Your task to perform on an android device: turn vacation reply on in the gmail app Image 0: 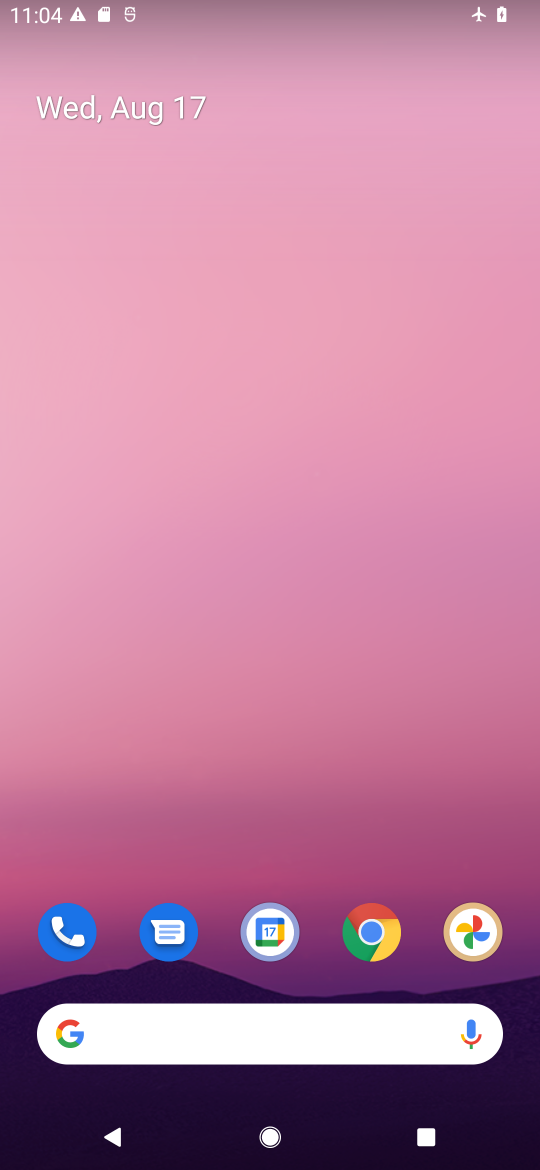
Step 0: drag from (288, 854) to (281, 381)
Your task to perform on an android device: turn vacation reply on in the gmail app Image 1: 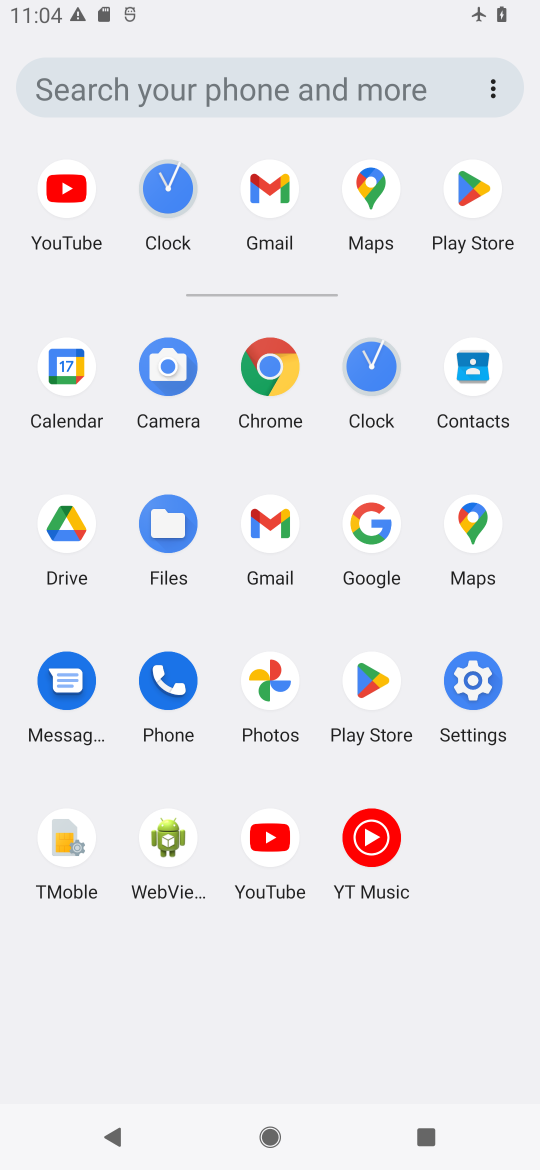
Step 1: click (259, 219)
Your task to perform on an android device: turn vacation reply on in the gmail app Image 2: 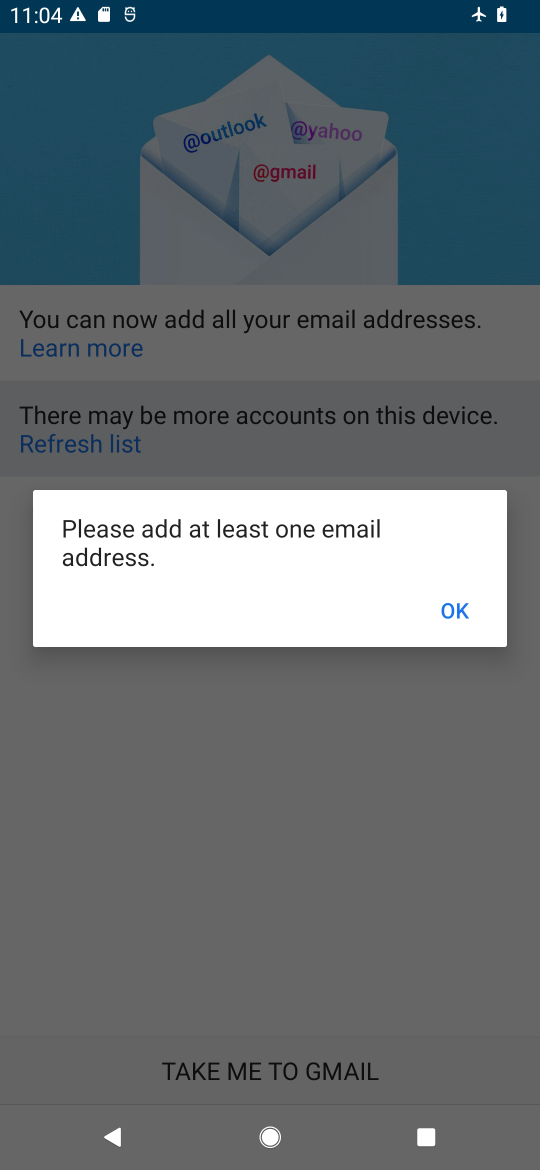
Step 2: click (454, 626)
Your task to perform on an android device: turn vacation reply on in the gmail app Image 3: 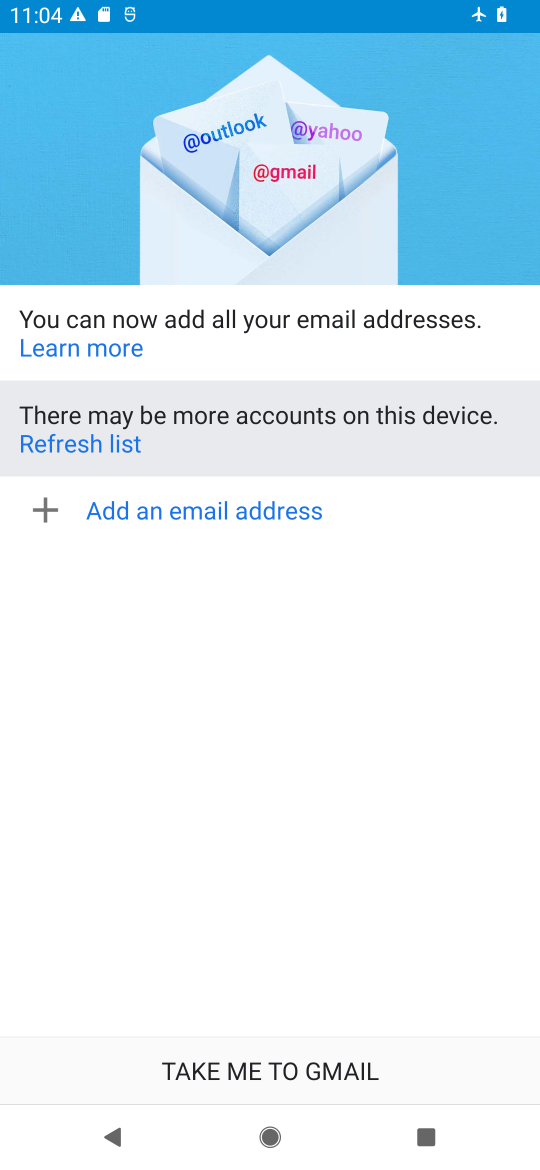
Step 3: click (310, 1049)
Your task to perform on an android device: turn vacation reply on in the gmail app Image 4: 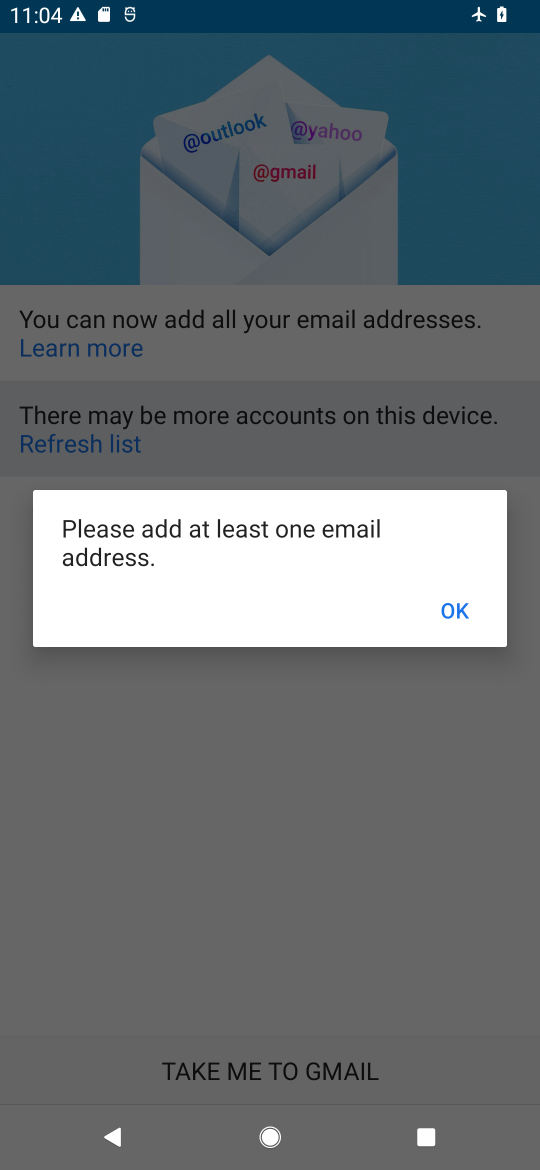
Step 4: click (457, 601)
Your task to perform on an android device: turn vacation reply on in the gmail app Image 5: 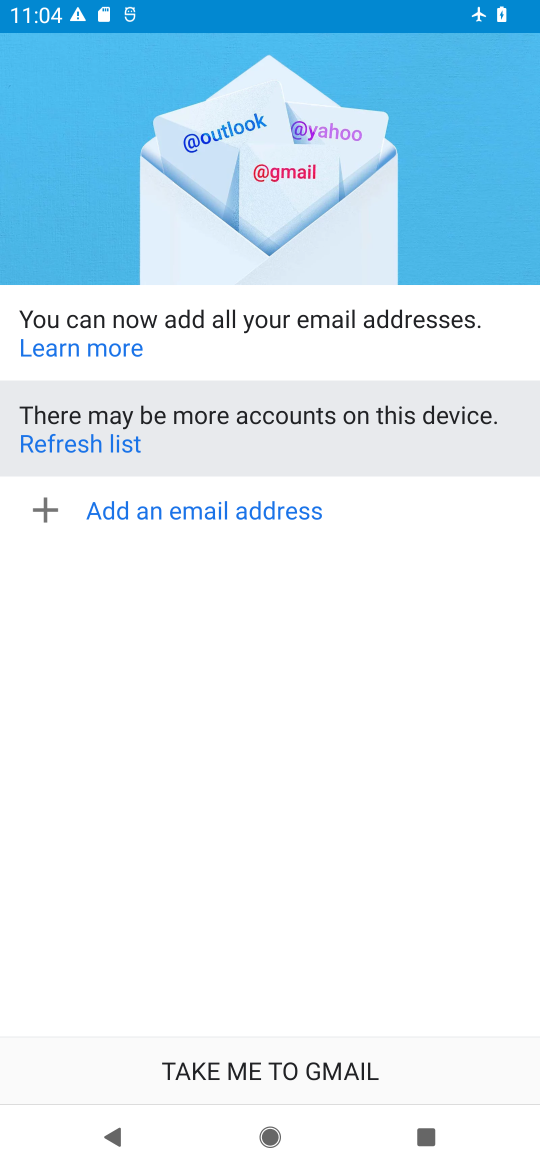
Step 5: task complete